Your task to perform on an android device: Go to Google maps Image 0: 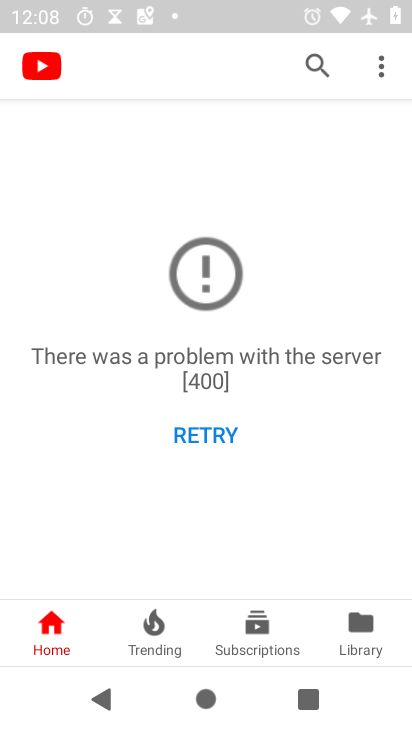
Step 0: press back button
Your task to perform on an android device: Go to Google maps Image 1: 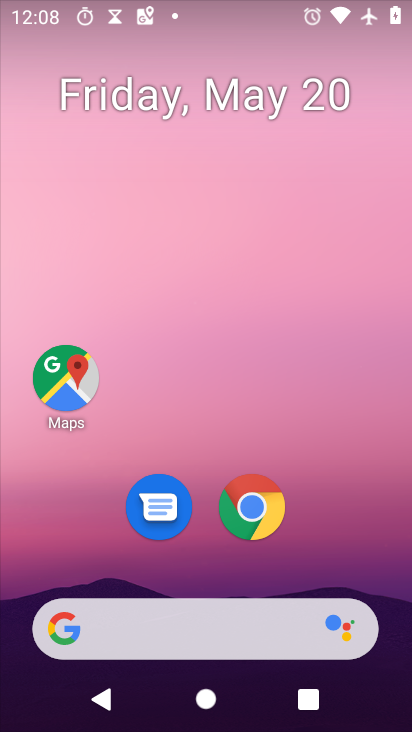
Step 1: drag from (349, 558) to (270, 36)
Your task to perform on an android device: Go to Google maps Image 2: 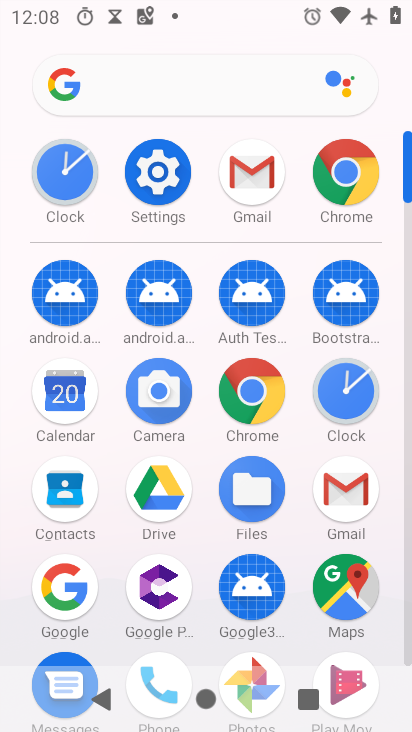
Step 2: click (343, 577)
Your task to perform on an android device: Go to Google maps Image 3: 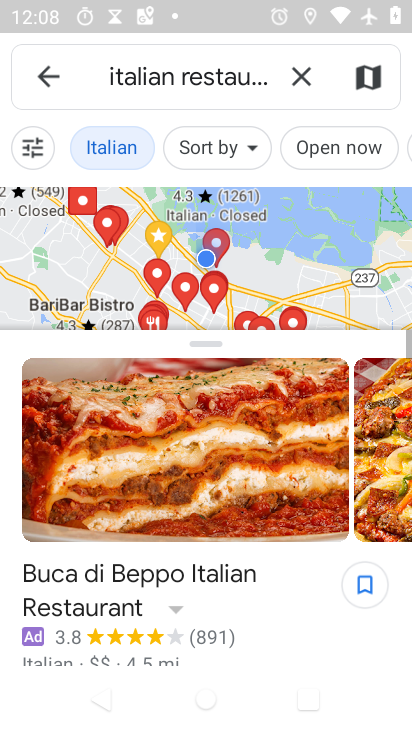
Step 3: click (47, 60)
Your task to perform on an android device: Go to Google maps Image 4: 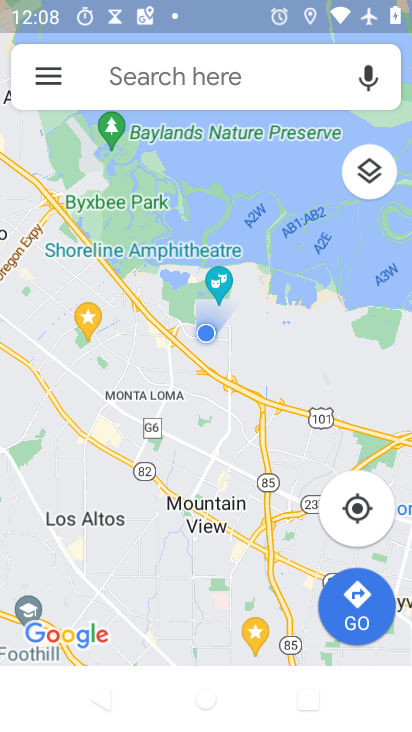
Step 4: task complete